Your task to perform on an android device: Open maps Image 0: 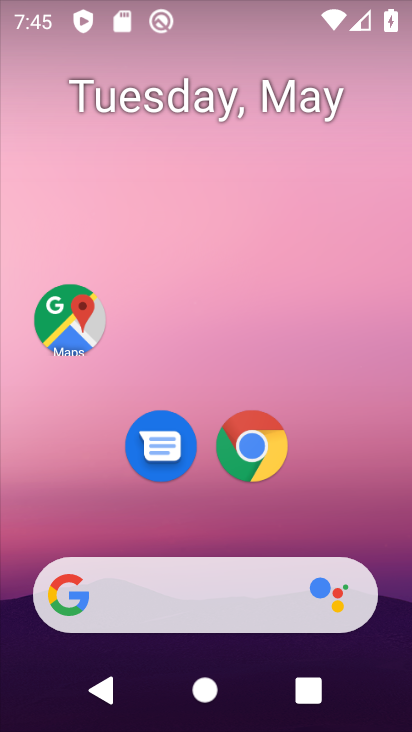
Step 0: click (69, 330)
Your task to perform on an android device: Open maps Image 1: 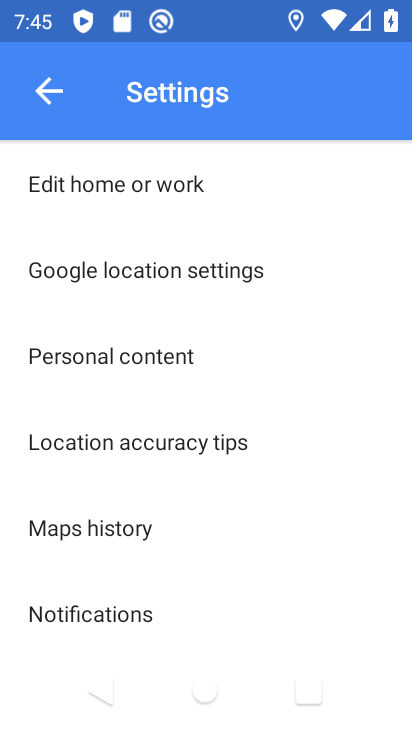
Step 1: click (49, 99)
Your task to perform on an android device: Open maps Image 2: 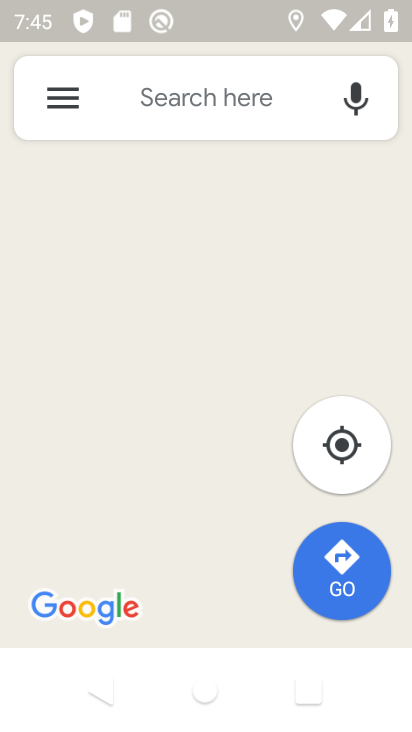
Step 2: task complete